Your task to perform on an android device: set the timer Image 0: 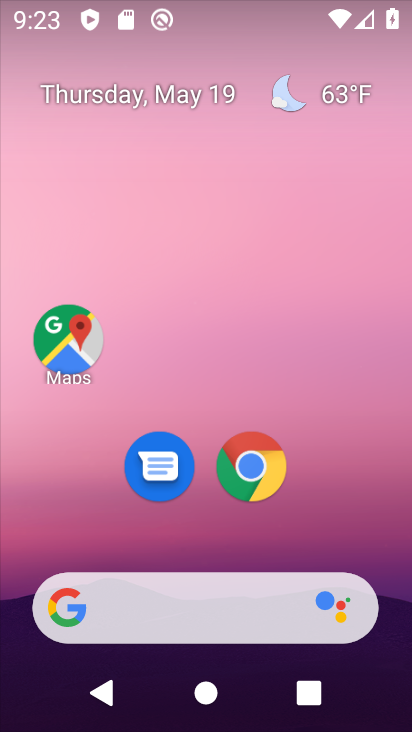
Step 0: drag from (382, 634) to (326, 81)
Your task to perform on an android device: set the timer Image 1: 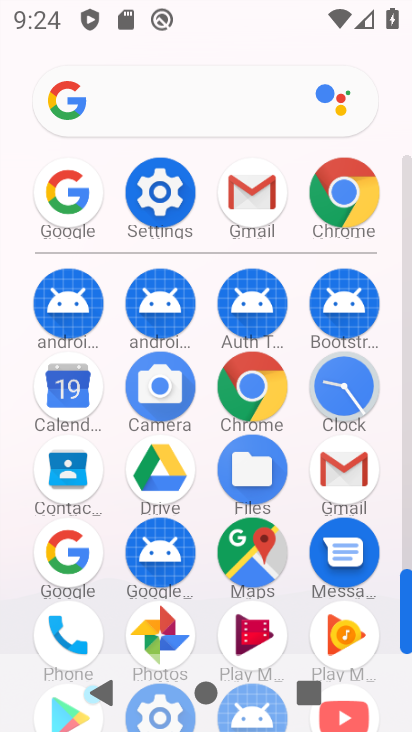
Step 1: click (340, 389)
Your task to perform on an android device: set the timer Image 2: 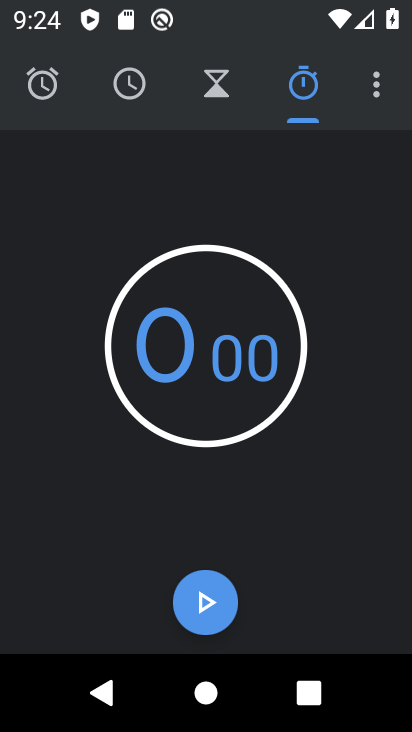
Step 2: click (378, 81)
Your task to perform on an android device: set the timer Image 3: 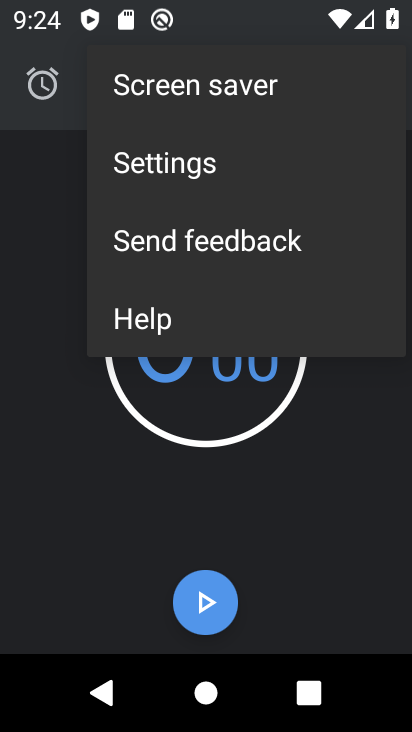
Step 3: click (232, 155)
Your task to perform on an android device: set the timer Image 4: 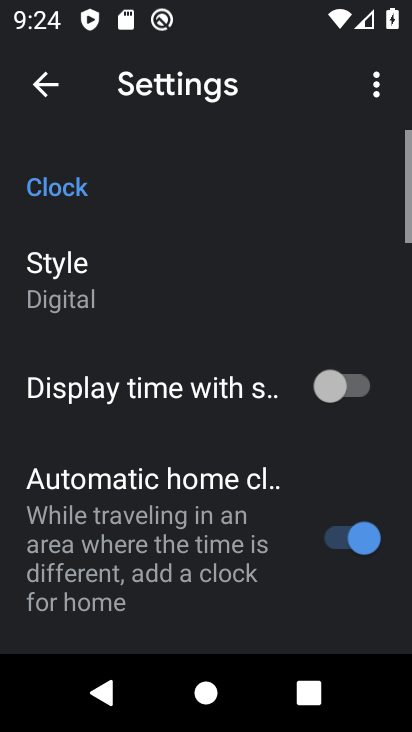
Step 4: drag from (203, 530) to (232, 93)
Your task to perform on an android device: set the timer Image 5: 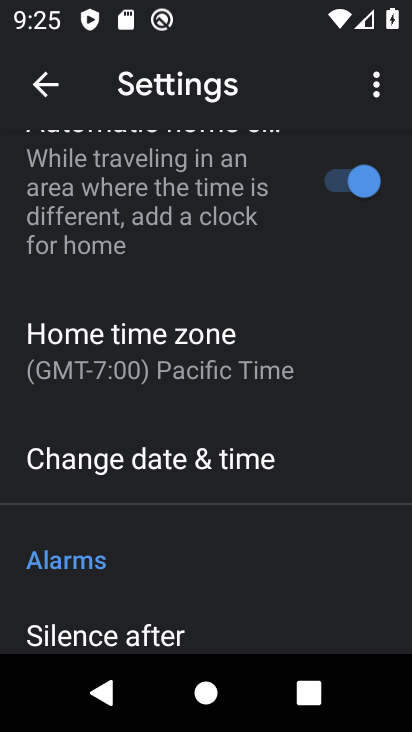
Step 5: click (210, 373)
Your task to perform on an android device: set the timer Image 6: 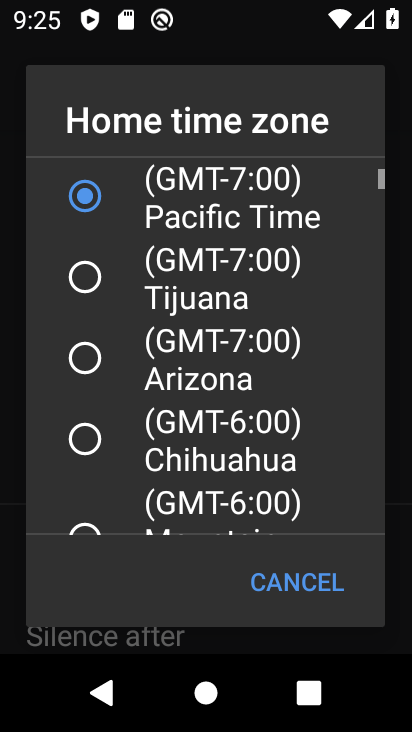
Step 6: click (240, 426)
Your task to perform on an android device: set the timer Image 7: 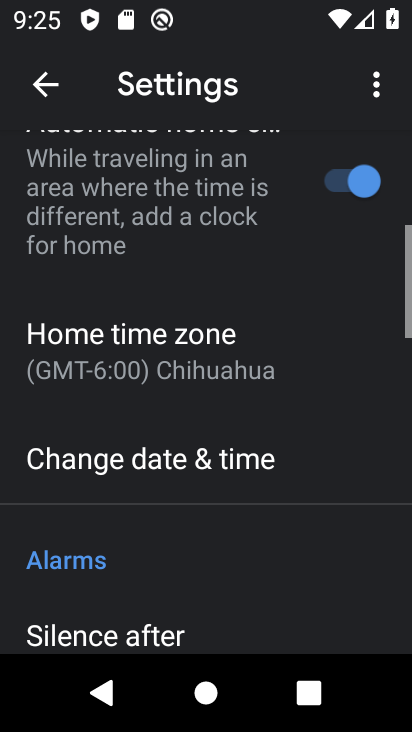
Step 7: task complete